Your task to perform on an android device: allow cookies in the chrome app Image 0: 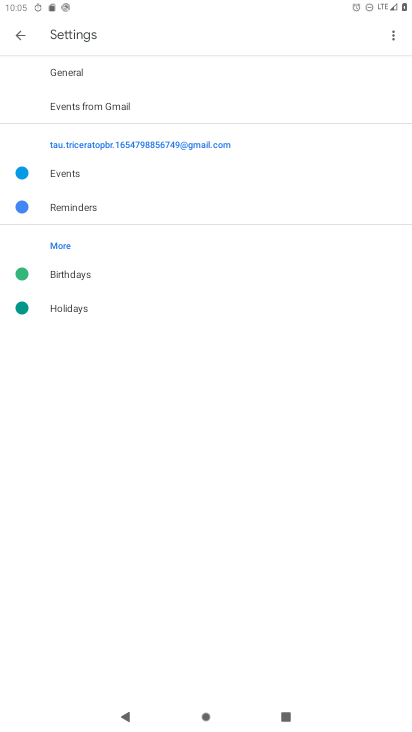
Step 0: press home button
Your task to perform on an android device: allow cookies in the chrome app Image 1: 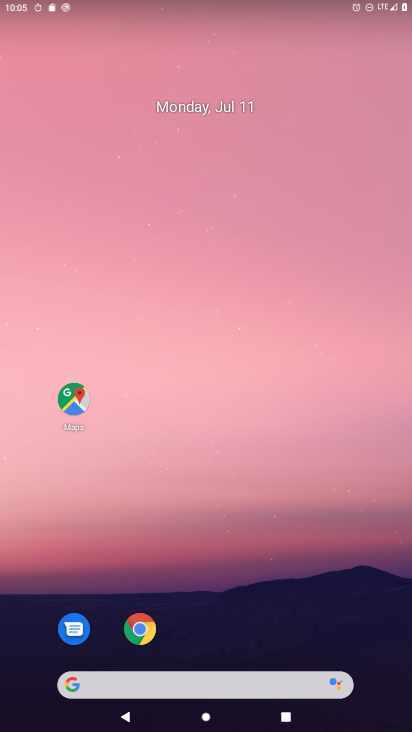
Step 1: click (146, 632)
Your task to perform on an android device: allow cookies in the chrome app Image 2: 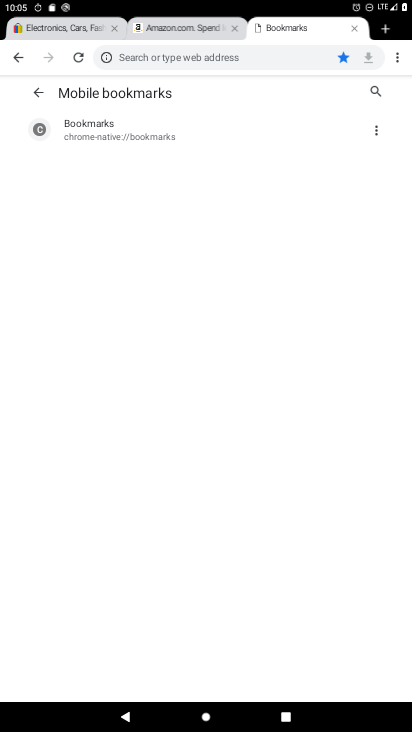
Step 2: click (397, 49)
Your task to perform on an android device: allow cookies in the chrome app Image 3: 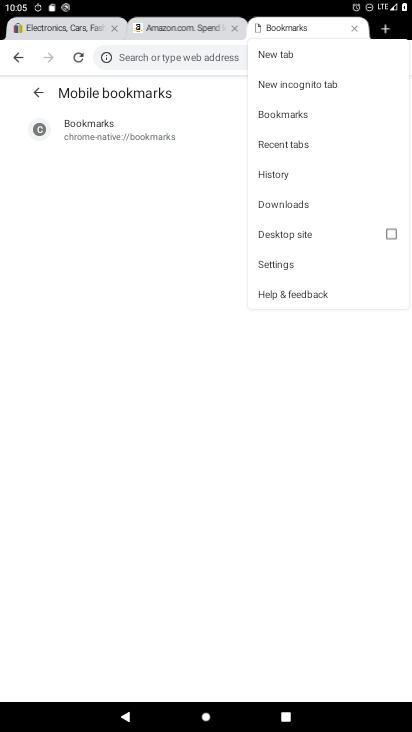
Step 3: click (291, 260)
Your task to perform on an android device: allow cookies in the chrome app Image 4: 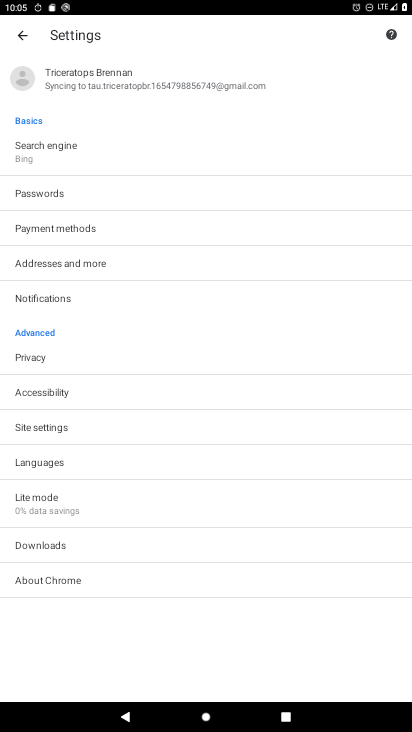
Step 4: click (138, 417)
Your task to perform on an android device: allow cookies in the chrome app Image 5: 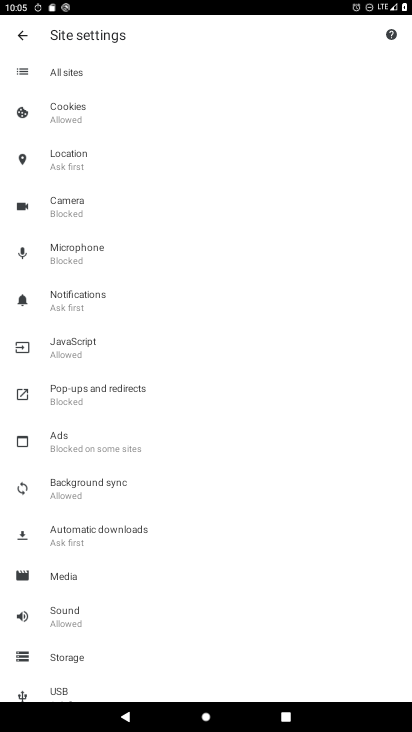
Step 5: click (141, 124)
Your task to perform on an android device: allow cookies in the chrome app Image 6: 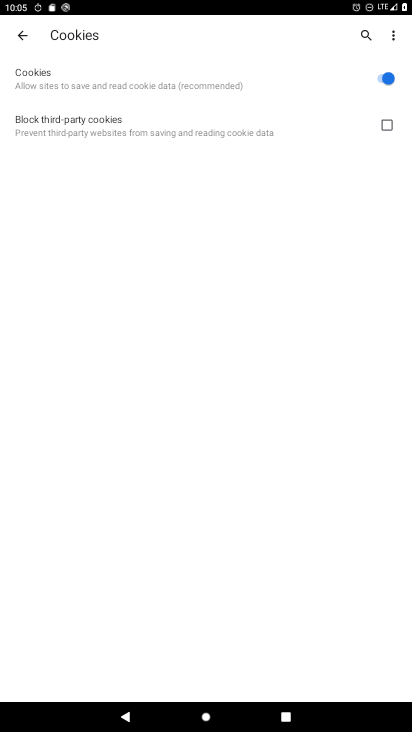
Step 6: task complete